Your task to perform on an android device: set the timer Image 0: 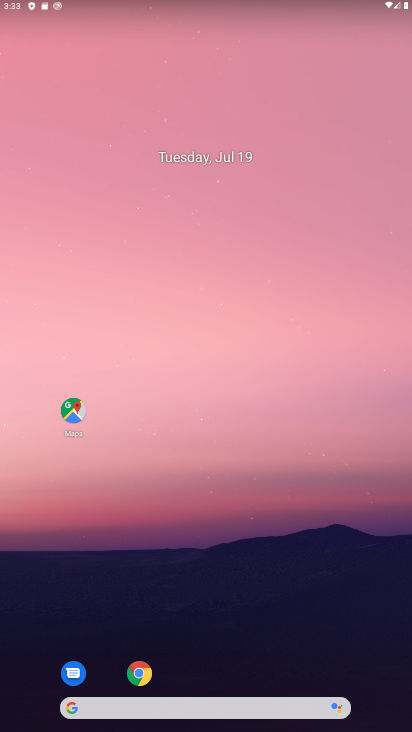
Step 0: drag from (275, 619) to (171, 46)
Your task to perform on an android device: set the timer Image 1: 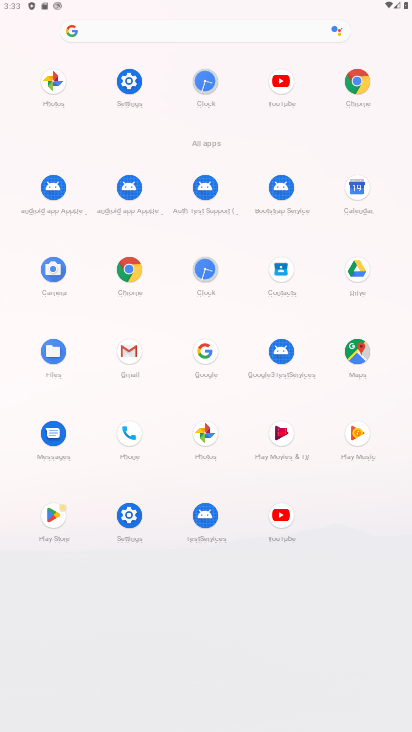
Step 1: click (204, 279)
Your task to perform on an android device: set the timer Image 2: 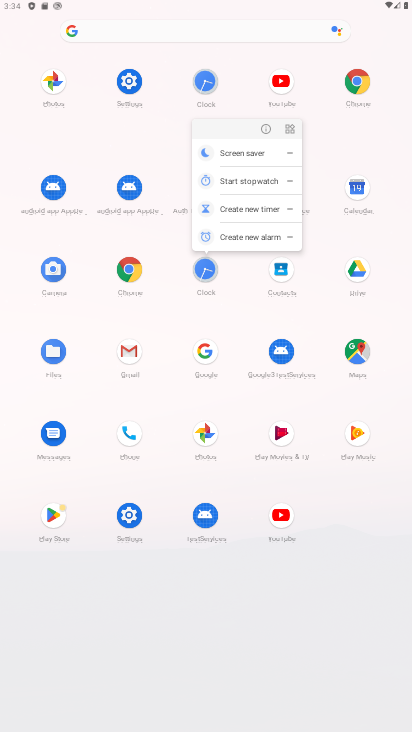
Step 2: click (210, 263)
Your task to perform on an android device: set the timer Image 3: 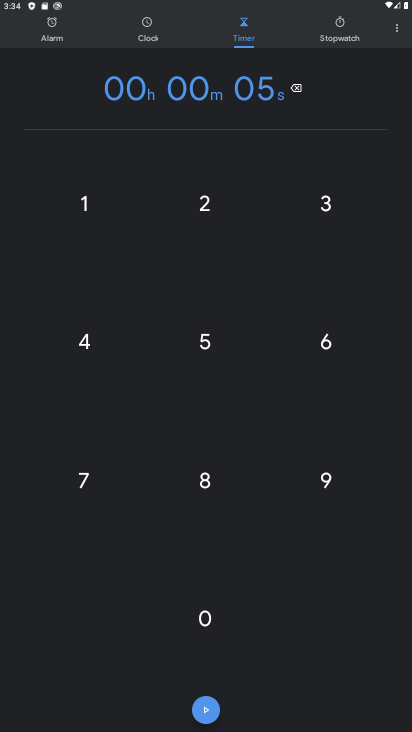
Step 3: task complete